Your task to perform on an android device: stop showing notifications on the lock screen Image 0: 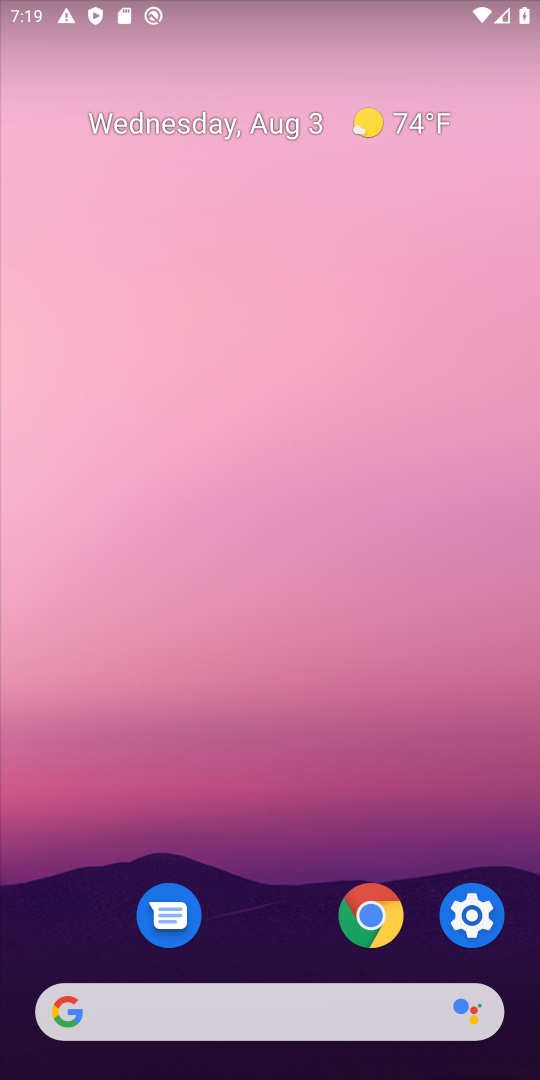
Step 0: press home button
Your task to perform on an android device: stop showing notifications on the lock screen Image 1: 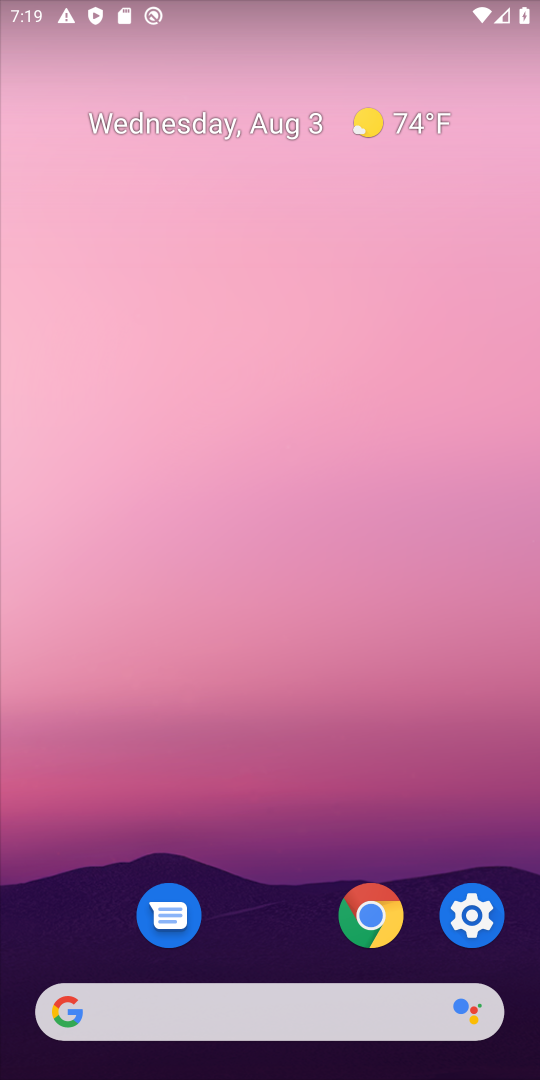
Step 1: click (466, 926)
Your task to perform on an android device: stop showing notifications on the lock screen Image 2: 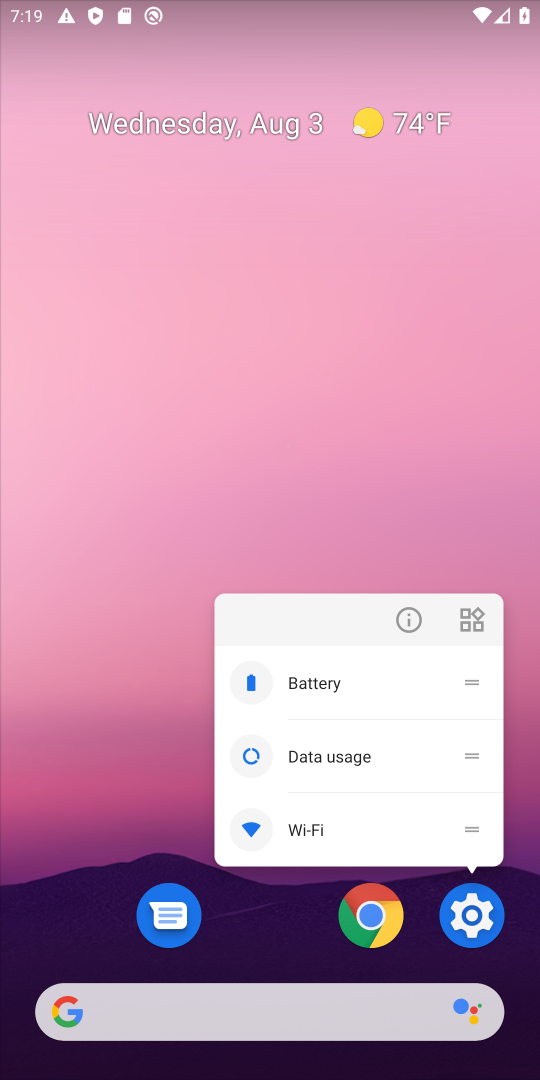
Step 2: click (82, 633)
Your task to perform on an android device: stop showing notifications on the lock screen Image 3: 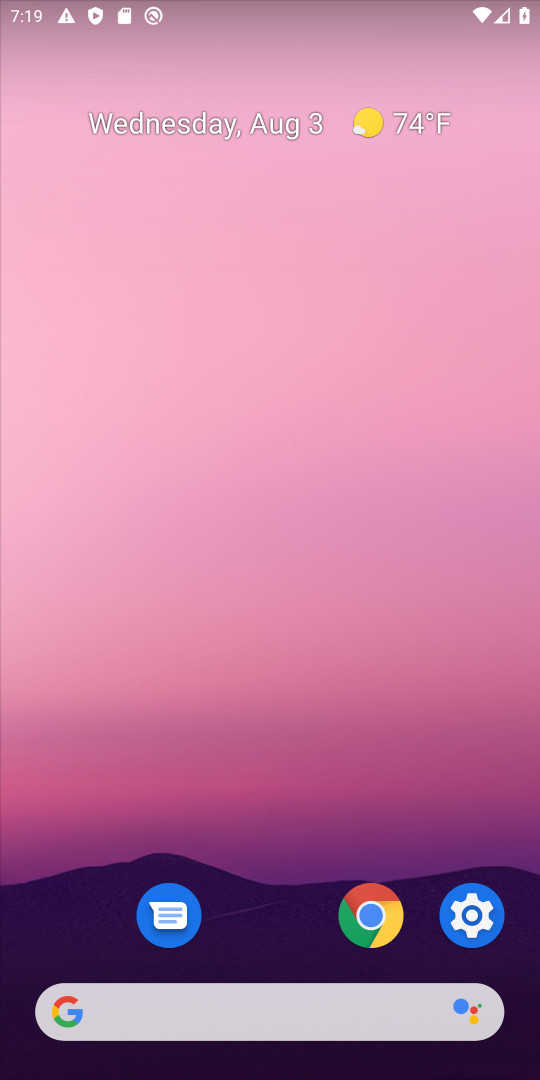
Step 3: drag from (273, 963) to (185, 280)
Your task to perform on an android device: stop showing notifications on the lock screen Image 4: 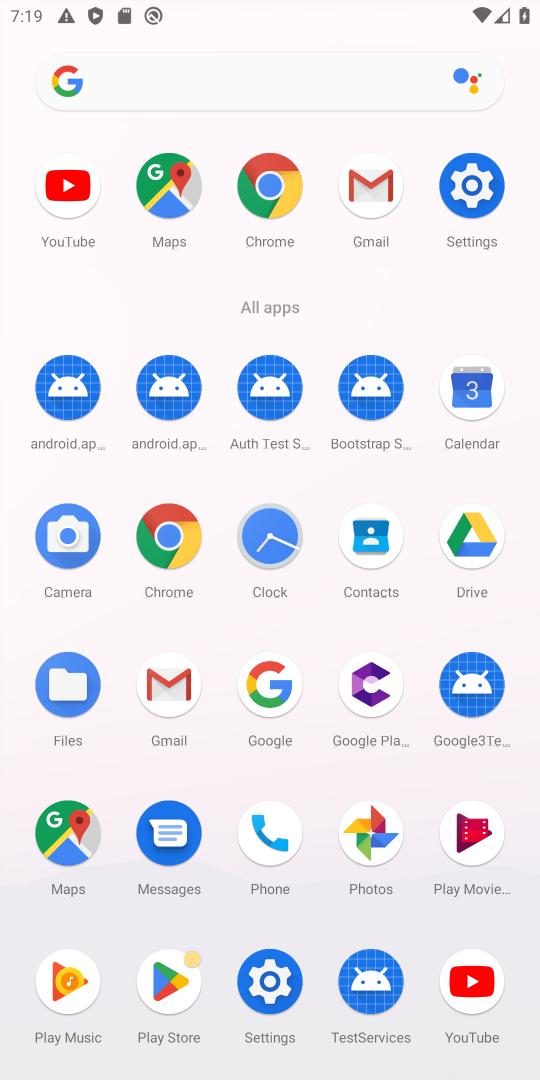
Step 4: click (486, 183)
Your task to perform on an android device: stop showing notifications on the lock screen Image 5: 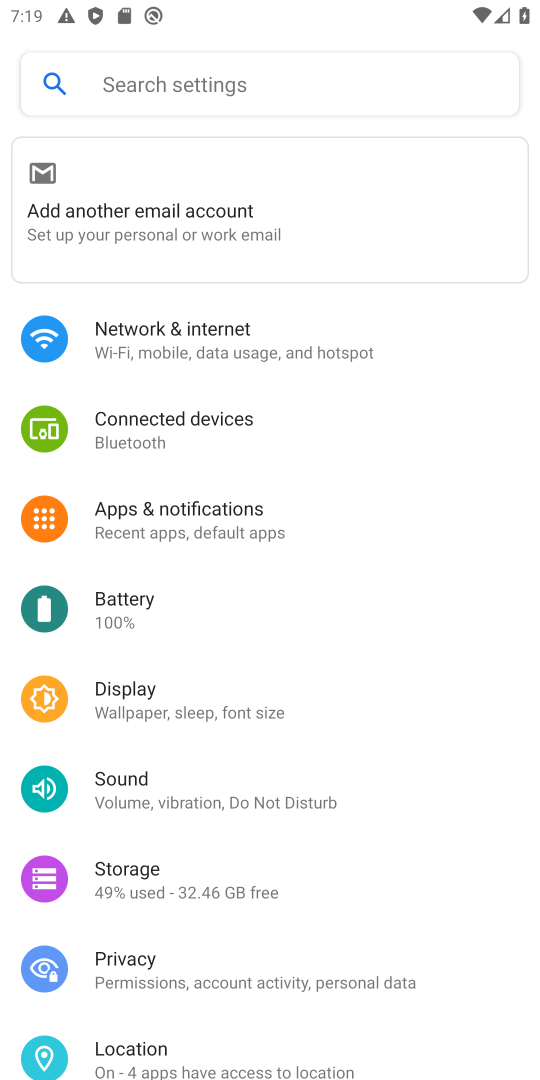
Step 5: click (142, 101)
Your task to perform on an android device: stop showing notifications on the lock screen Image 6: 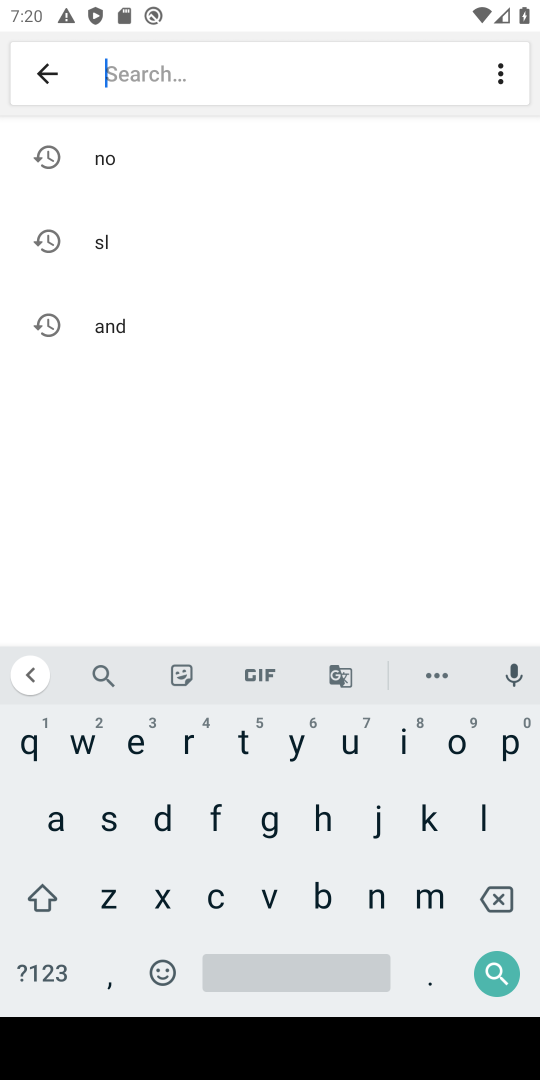
Step 6: click (139, 160)
Your task to perform on an android device: stop showing notifications on the lock screen Image 7: 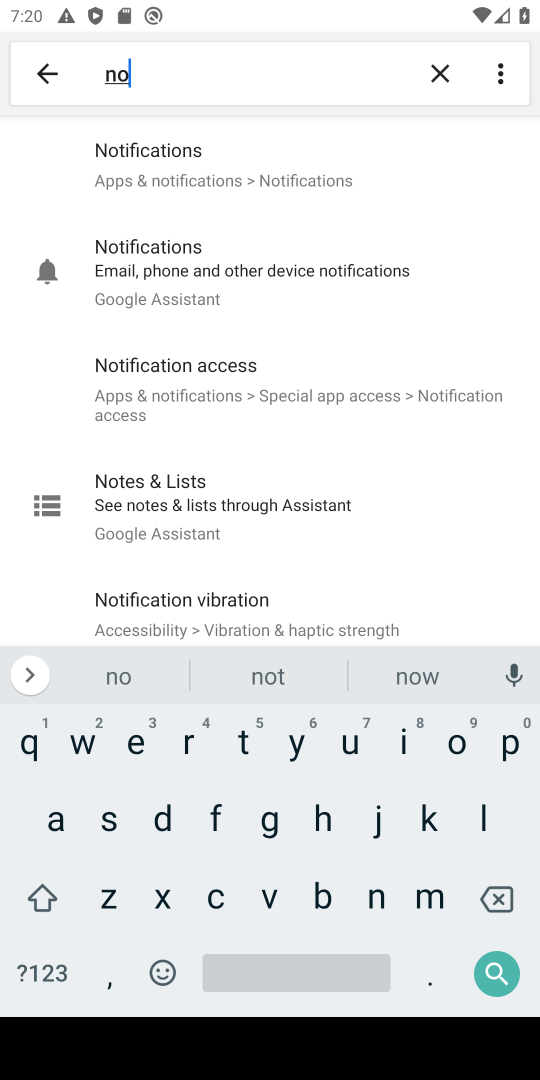
Step 7: click (163, 166)
Your task to perform on an android device: stop showing notifications on the lock screen Image 8: 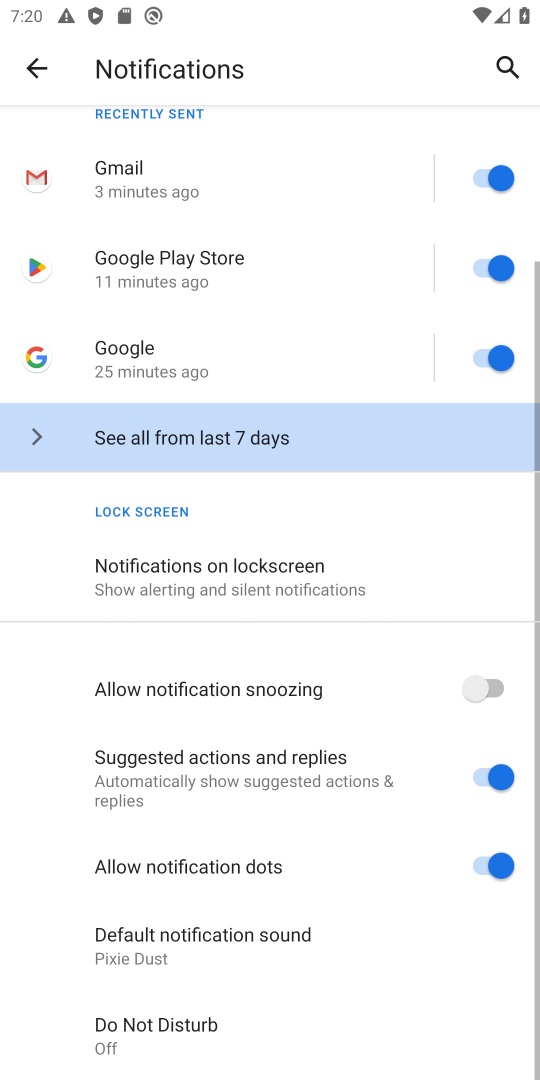
Step 8: click (165, 549)
Your task to perform on an android device: stop showing notifications on the lock screen Image 9: 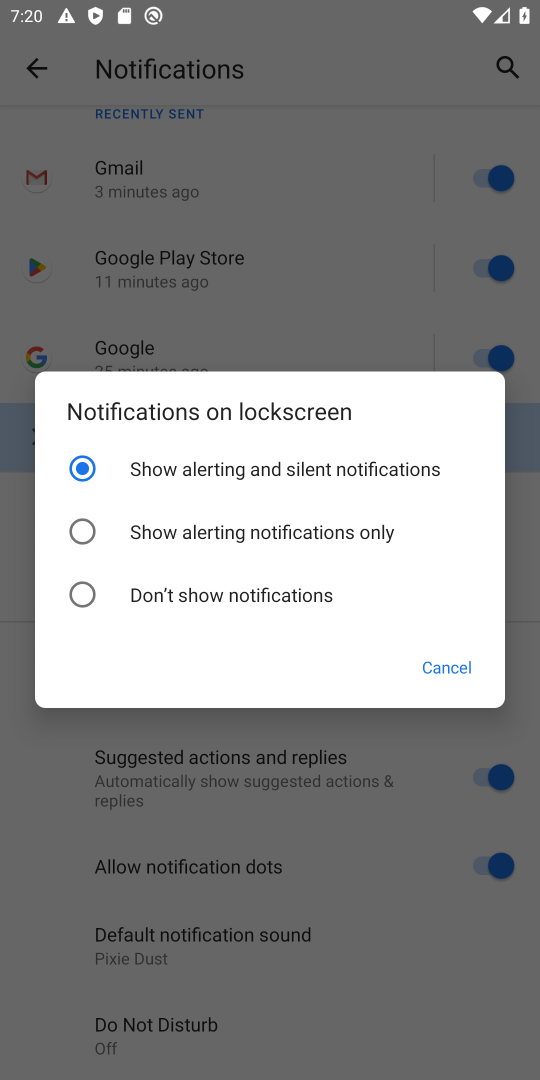
Step 9: click (174, 588)
Your task to perform on an android device: stop showing notifications on the lock screen Image 10: 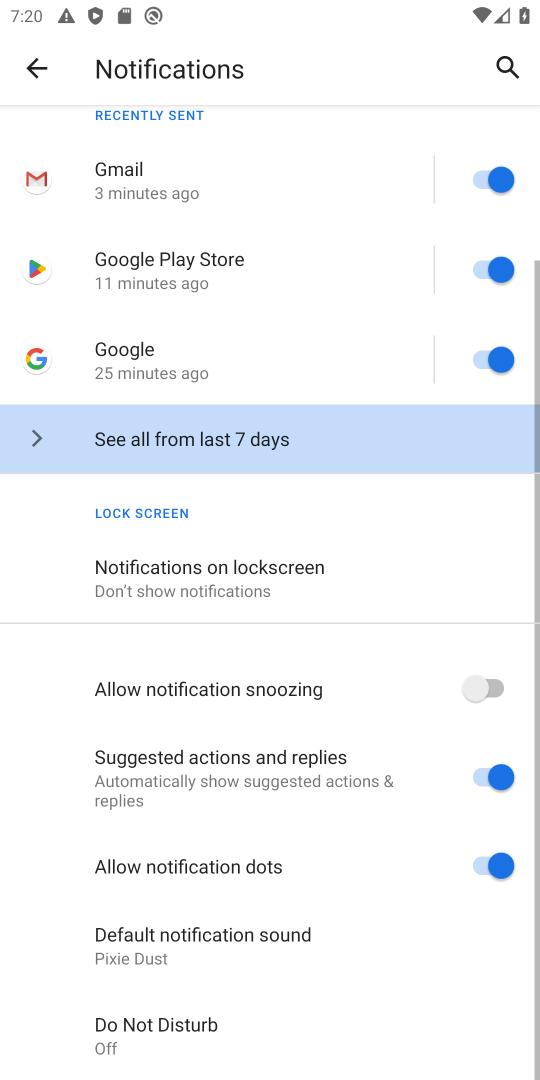
Step 10: click (203, 586)
Your task to perform on an android device: stop showing notifications on the lock screen Image 11: 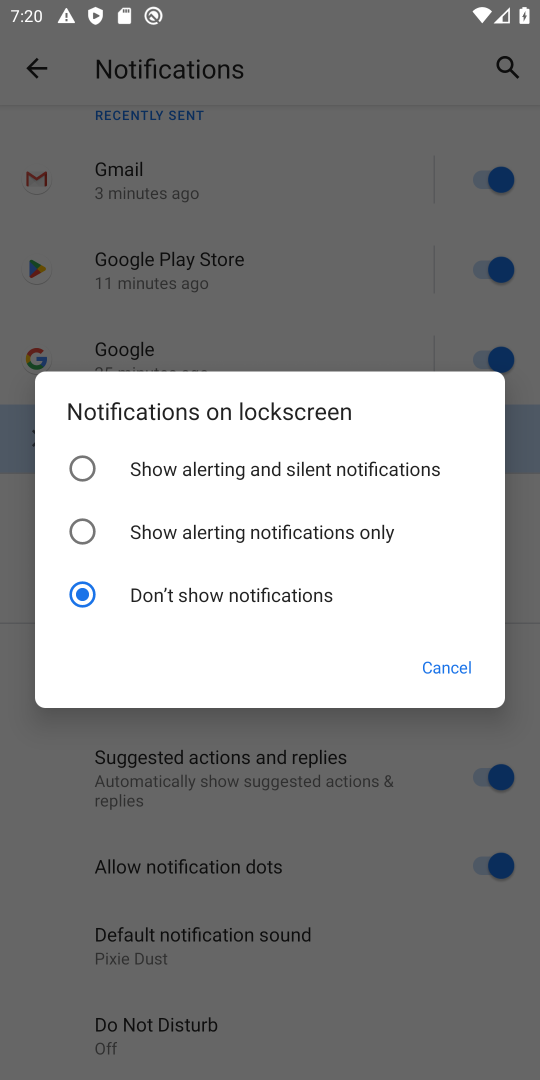
Step 11: task complete